Your task to perform on an android device: refresh tabs in the chrome app Image 0: 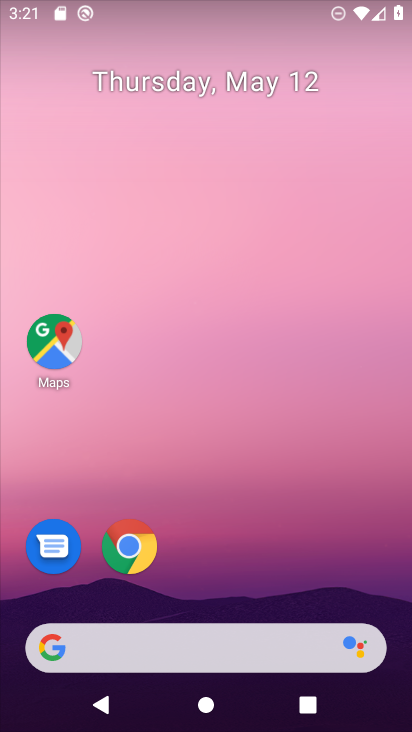
Step 0: drag from (233, 589) to (262, 326)
Your task to perform on an android device: refresh tabs in the chrome app Image 1: 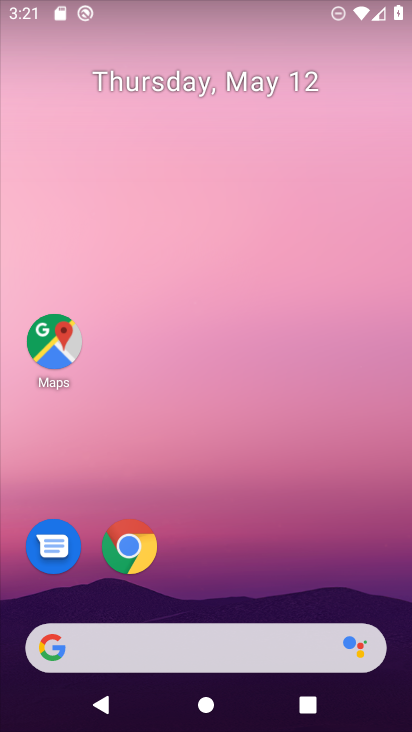
Step 1: drag from (227, 597) to (268, 261)
Your task to perform on an android device: refresh tabs in the chrome app Image 2: 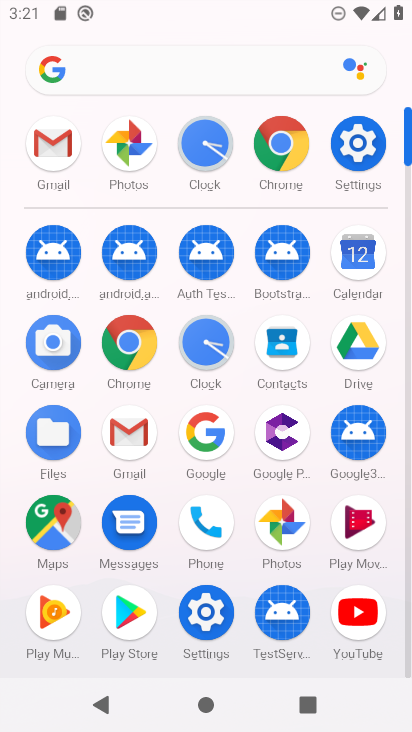
Step 2: click (281, 140)
Your task to perform on an android device: refresh tabs in the chrome app Image 3: 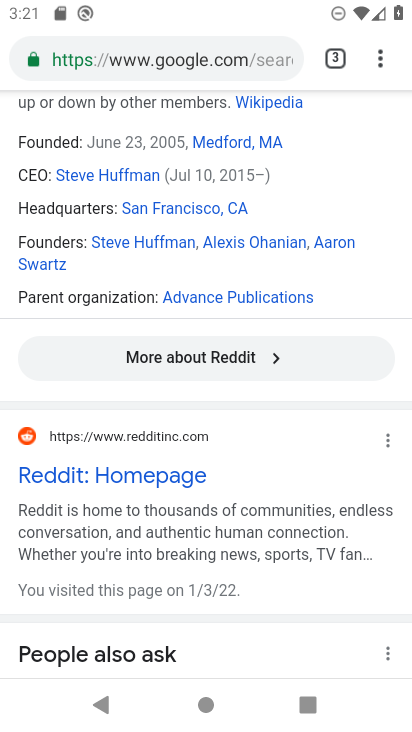
Step 3: click (367, 52)
Your task to perform on an android device: refresh tabs in the chrome app Image 4: 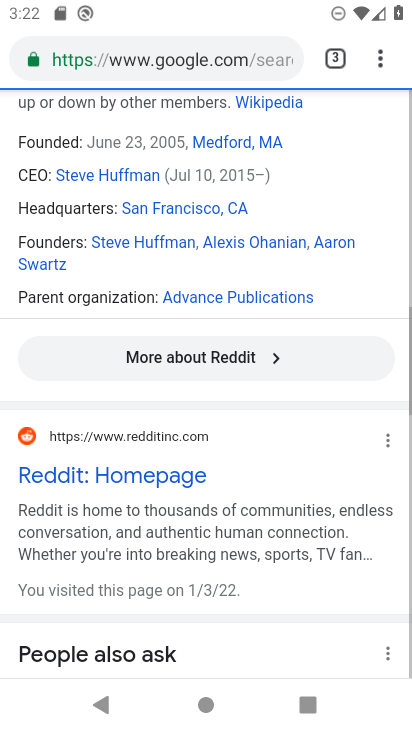
Step 4: click (373, 53)
Your task to perform on an android device: refresh tabs in the chrome app Image 5: 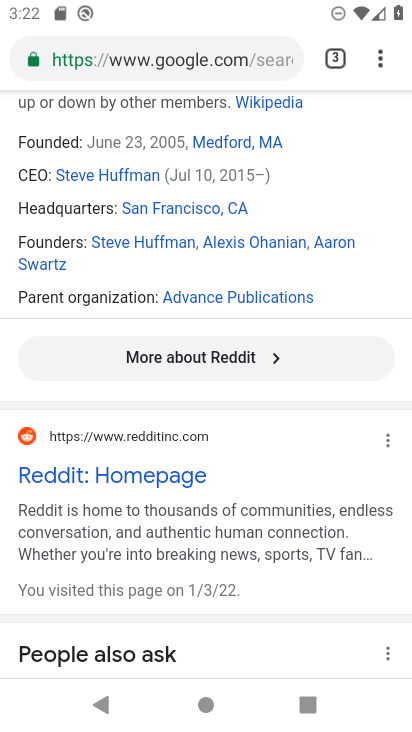
Step 5: click (381, 61)
Your task to perform on an android device: refresh tabs in the chrome app Image 6: 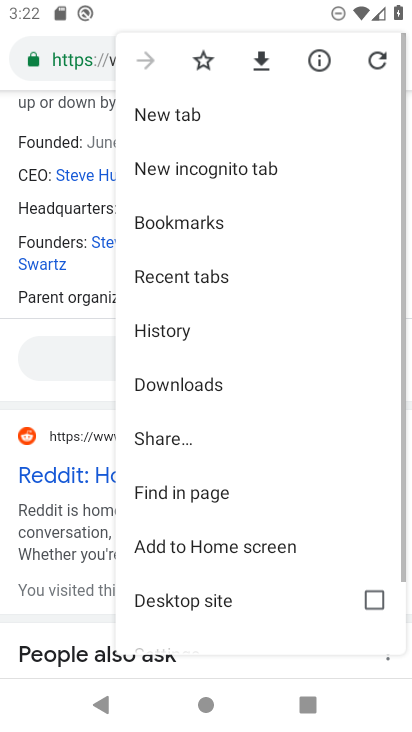
Step 6: click (370, 50)
Your task to perform on an android device: refresh tabs in the chrome app Image 7: 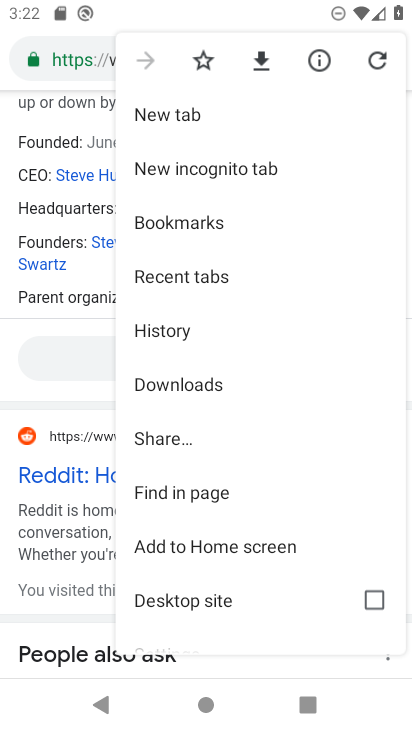
Step 7: task complete